Your task to perform on an android device: Is it going to rain tomorrow? Image 0: 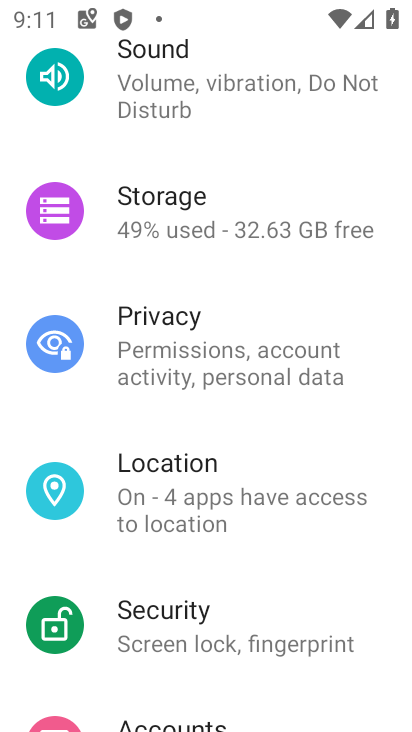
Step 0: press back button
Your task to perform on an android device: Is it going to rain tomorrow? Image 1: 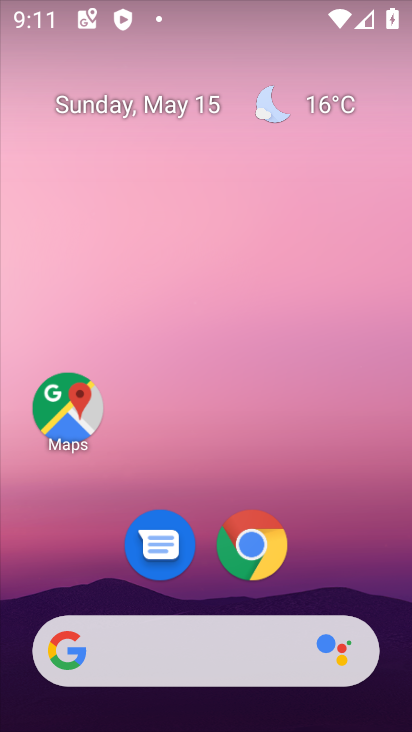
Step 1: drag from (315, 552) to (247, 98)
Your task to perform on an android device: Is it going to rain tomorrow? Image 2: 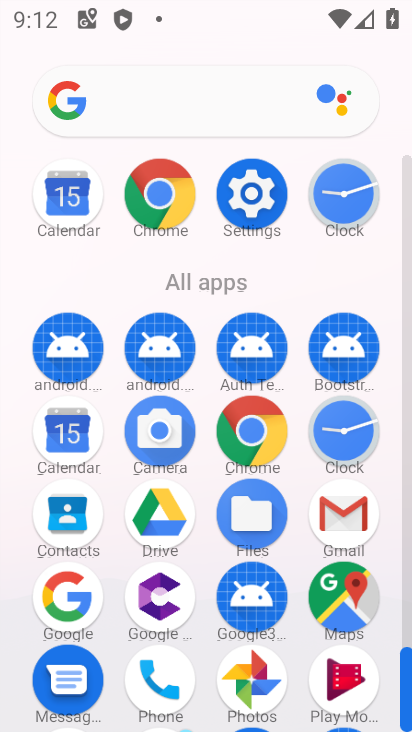
Step 2: click (61, 592)
Your task to perform on an android device: Is it going to rain tomorrow? Image 3: 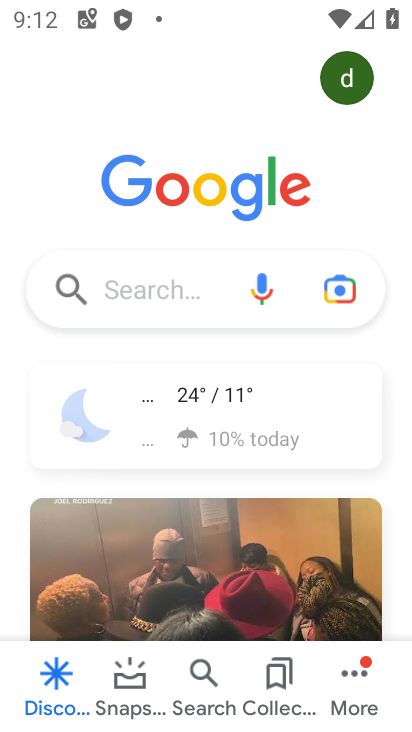
Step 3: click (155, 281)
Your task to perform on an android device: Is it going to rain tomorrow? Image 4: 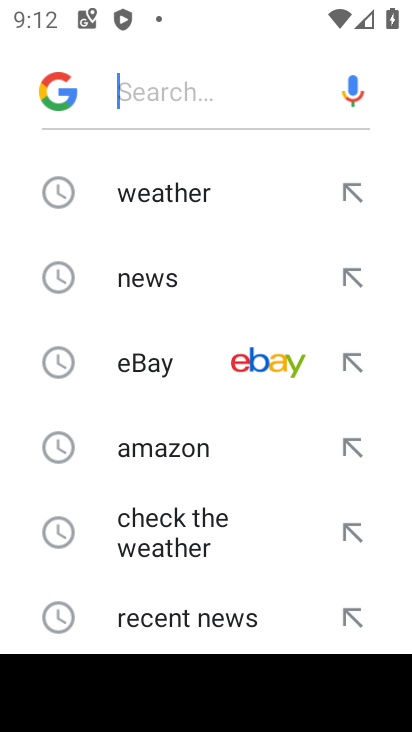
Step 4: type "is it going to rain tomorrow"
Your task to perform on an android device: Is it going to rain tomorrow? Image 5: 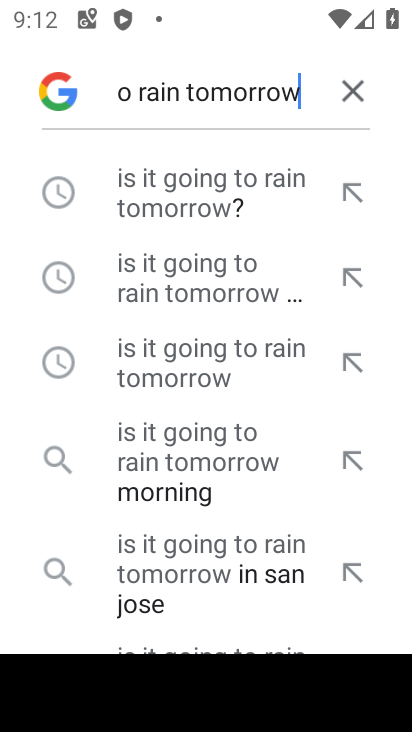
Step 5: click (176, 193)
Your task to perform on an android device: Is it going to rain tomorrow? Image 6: 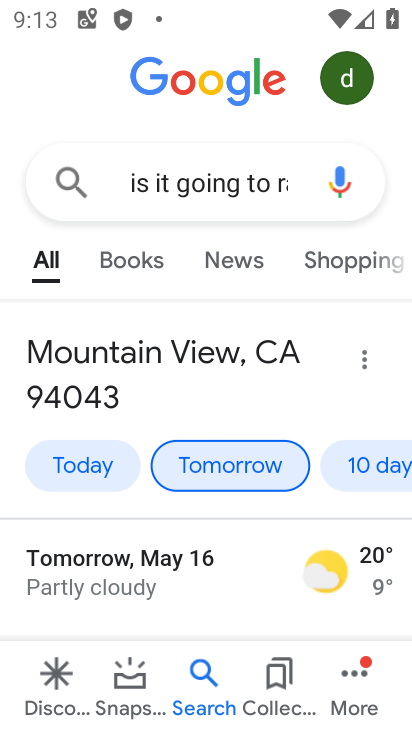
Step 6: task complete